Your task to perform on an android device: turn smart compose on in the gmail app Image 0: 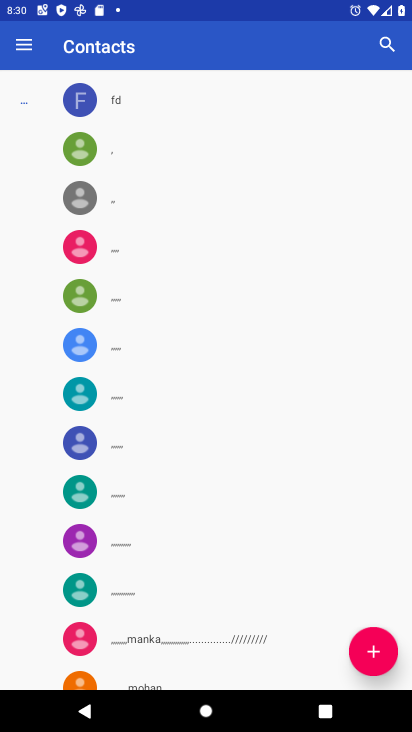
Step 0: press home button
Your task to perform on an android device: turn smart compose on in the gmail app Image 1: 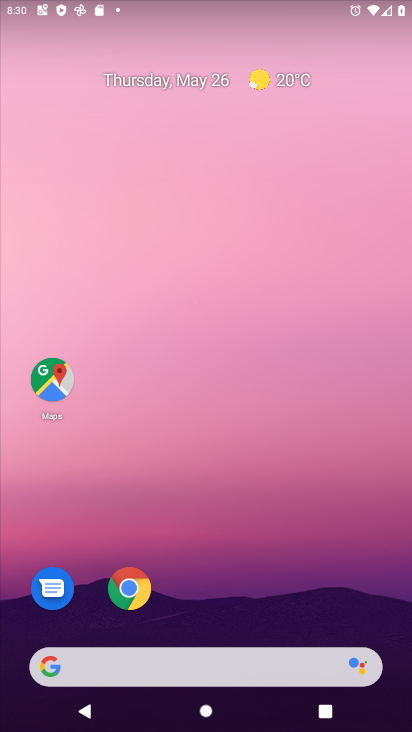
Step 1: drag from (393, 613) to (328, 98)
Your task to perform on an android device: turn smart compose on in the gmail app Image 2: 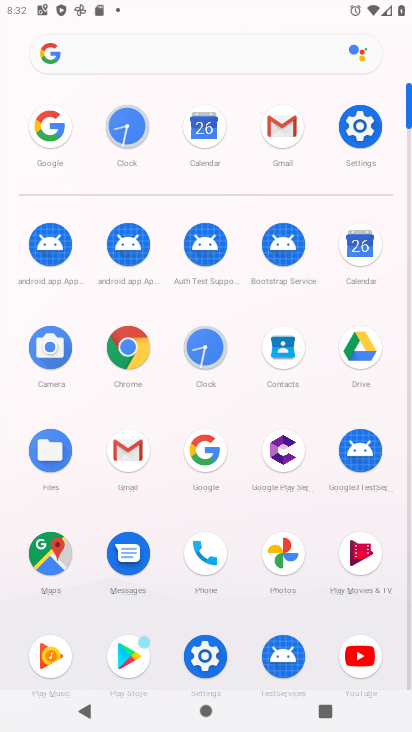
Step 2: click (127, 461)
Your task to perform on an android device: turn smart compose on in the gmail app Image 3: 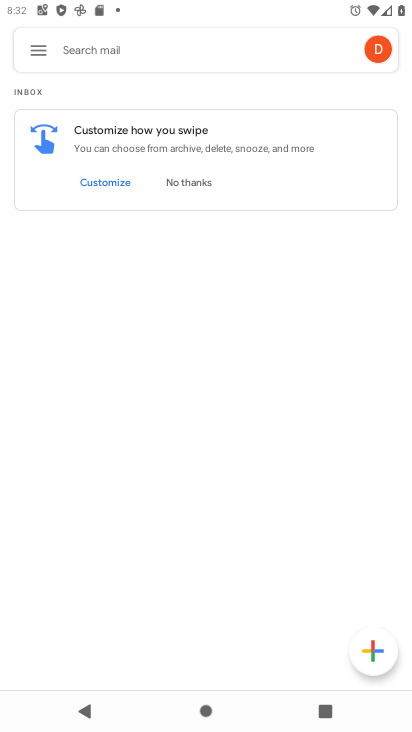
Step 3: click (40, 44)
Your task to perform on an android device: turn smart compose on in the gmail app Image 4: 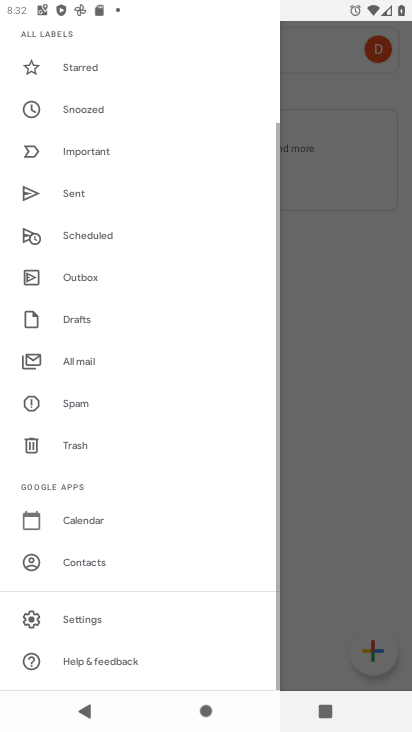
Step 4: click (89, 634)
Your task to perform on an android device: turn smart compose on in the gmail app Image 5: 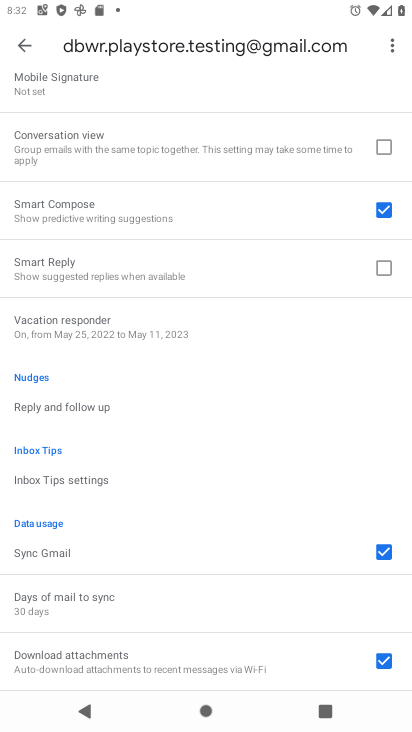
Step 5: task complete